Your task to perform on an android device: check the backup settings in the google photos Image 0: 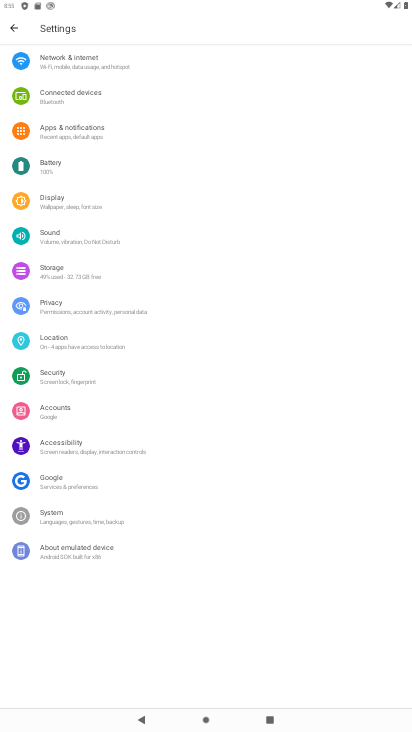
Step 0: press home button
Your task to perform on an android device: check the backup settings in the google photos Image 1: 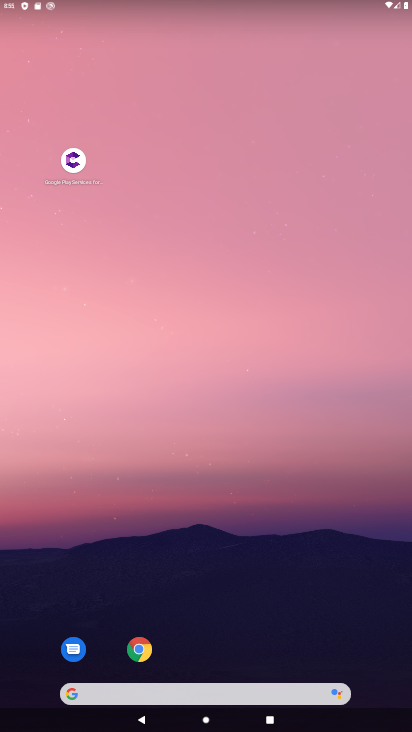
Step 1: drag from (219, 595) to (276, 205)
Your task to perform on an android device: check the backup settings in the google photos Image 2: 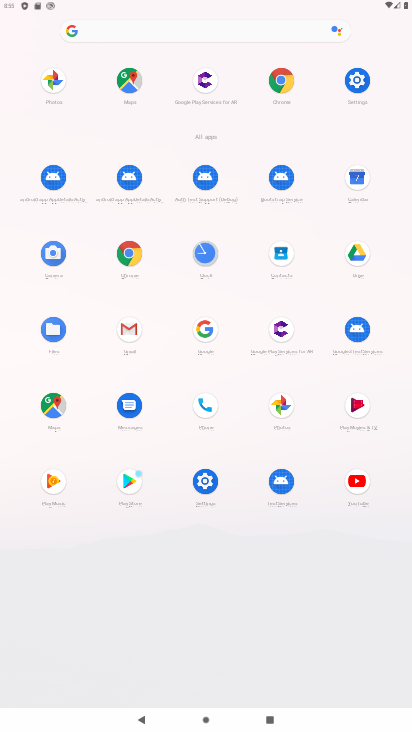
Step 2: click (283, 414)
Your task to perform on an android device: check the backup settings in the google photos Image 3: 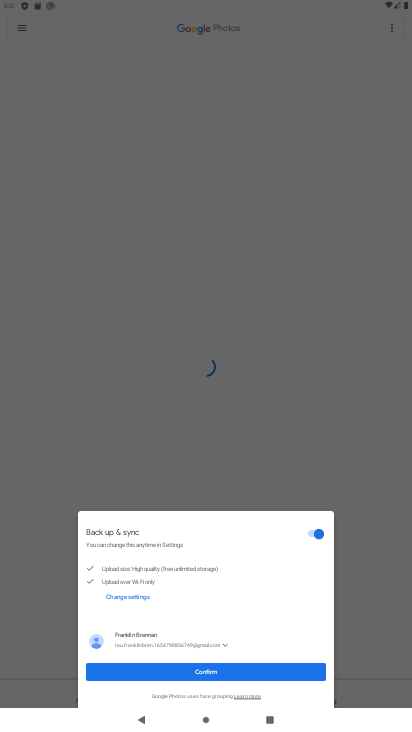
Step 3: click (230, 669)
Your task to perform on an android device: check the backup settings in the google photos Image 4: 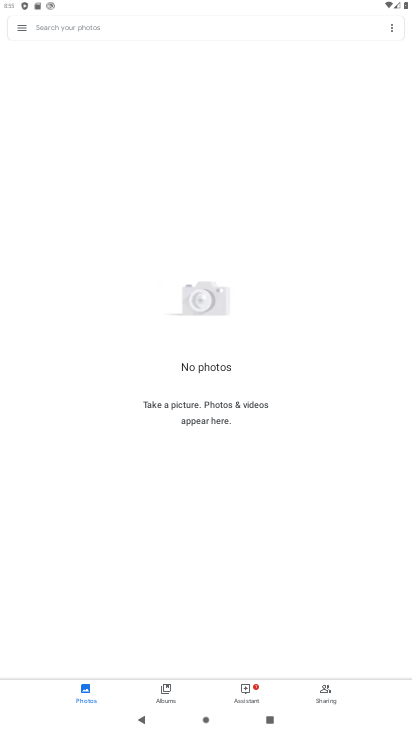
Step 4: click (392, 30)
Your task to perform on an android device: check the backup settings in the google photos Image 5: 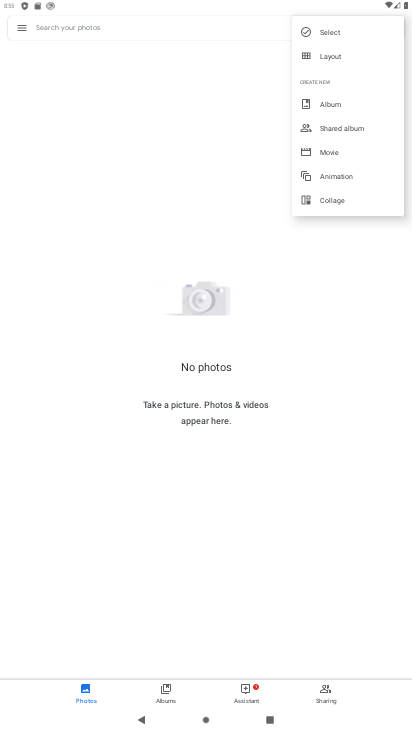
Step 5: click (7, 100)
Your task to perform on an android device: check the backup settings in the google photos Image 6: 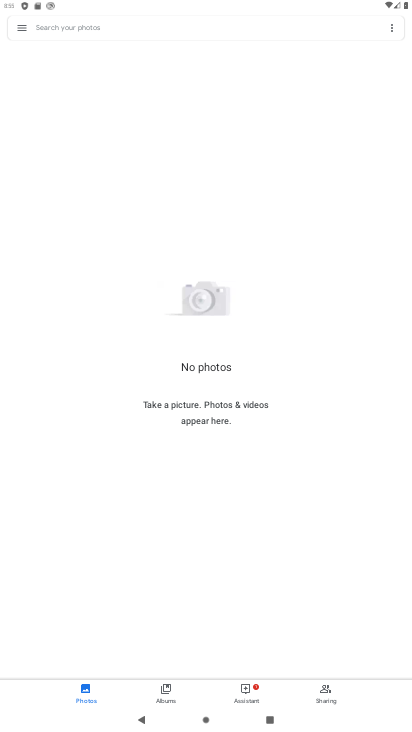
Step 6: click (18, 32)
Your task to perform on an android device: check the backup settings in the google photos Image 7: 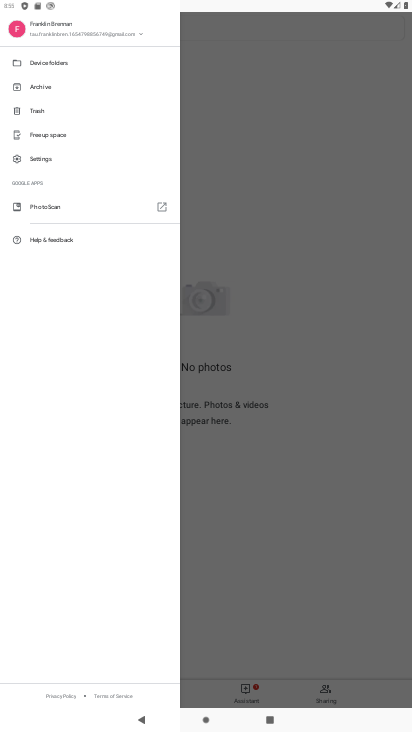
Step 7: click (24, 30)
Your task to perform on an android device: check the backup settings in the google photos Image 8: 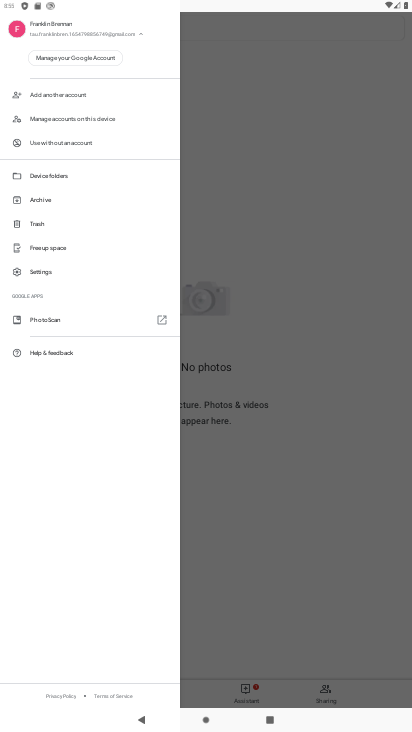
Step 8: click (332, 244)
Your task to perform on an android device: check the backup settings in the google photos Image 9: 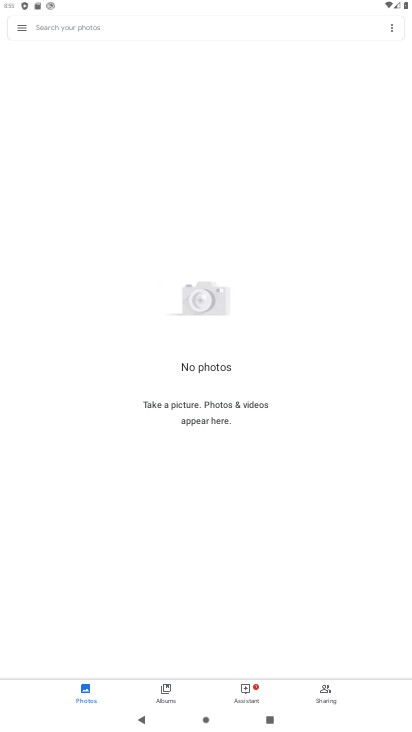
Step 9: task complete